Your task to perform on an android device: delete a single message in the gmail app Image 0: 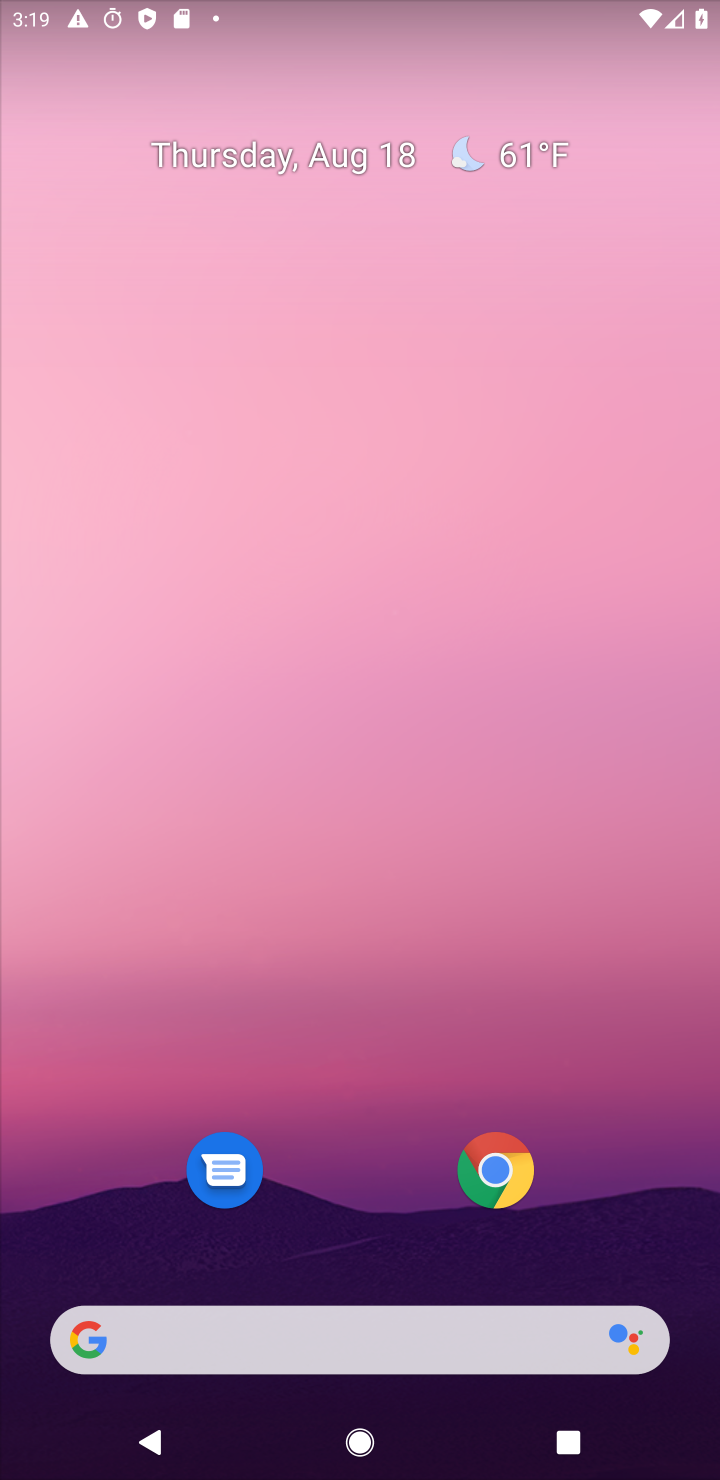
Step 0: drag from (36, 1407) to (430, 638)
Your task to perform on an android device: delete a single message in the gmail app Image 1: 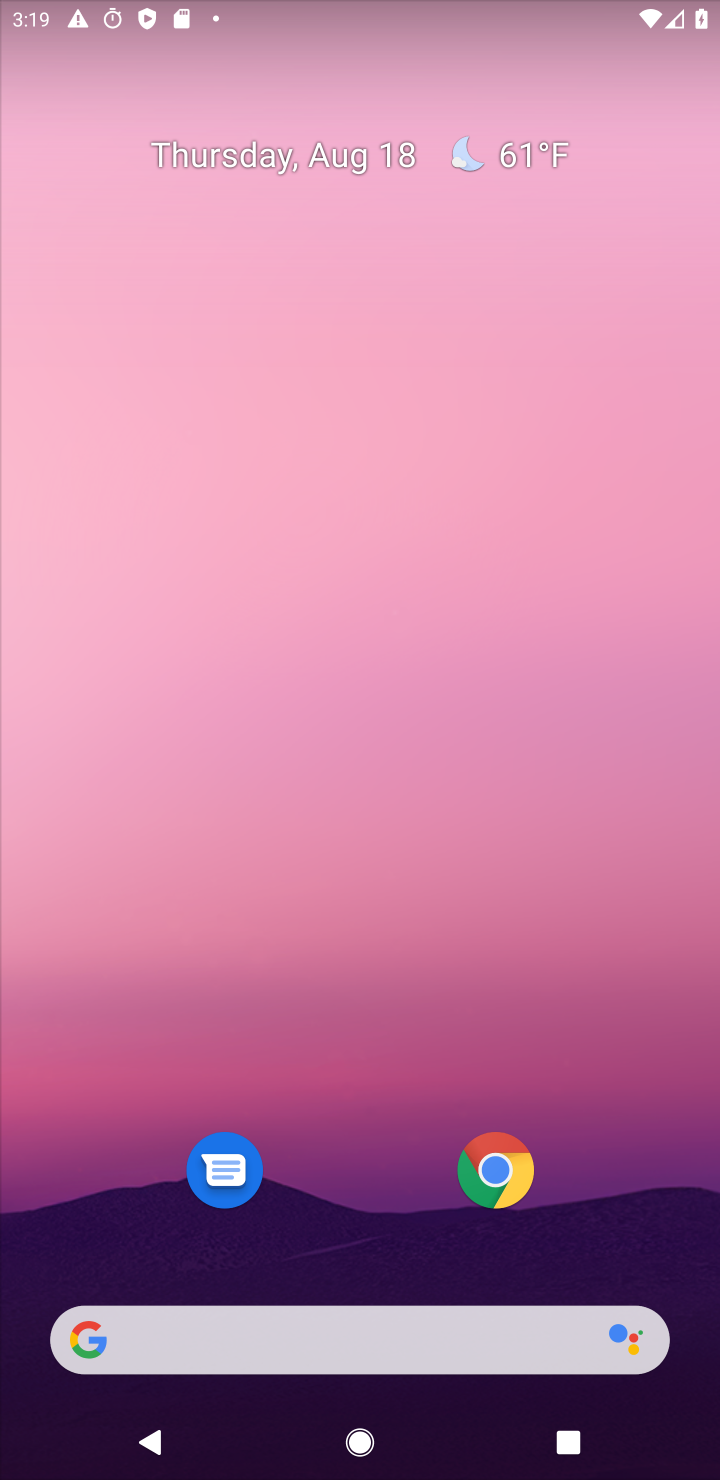
Step 1: task complete